Your task to perform on an android device: turn on priority inbox in the gmail app Image 0: 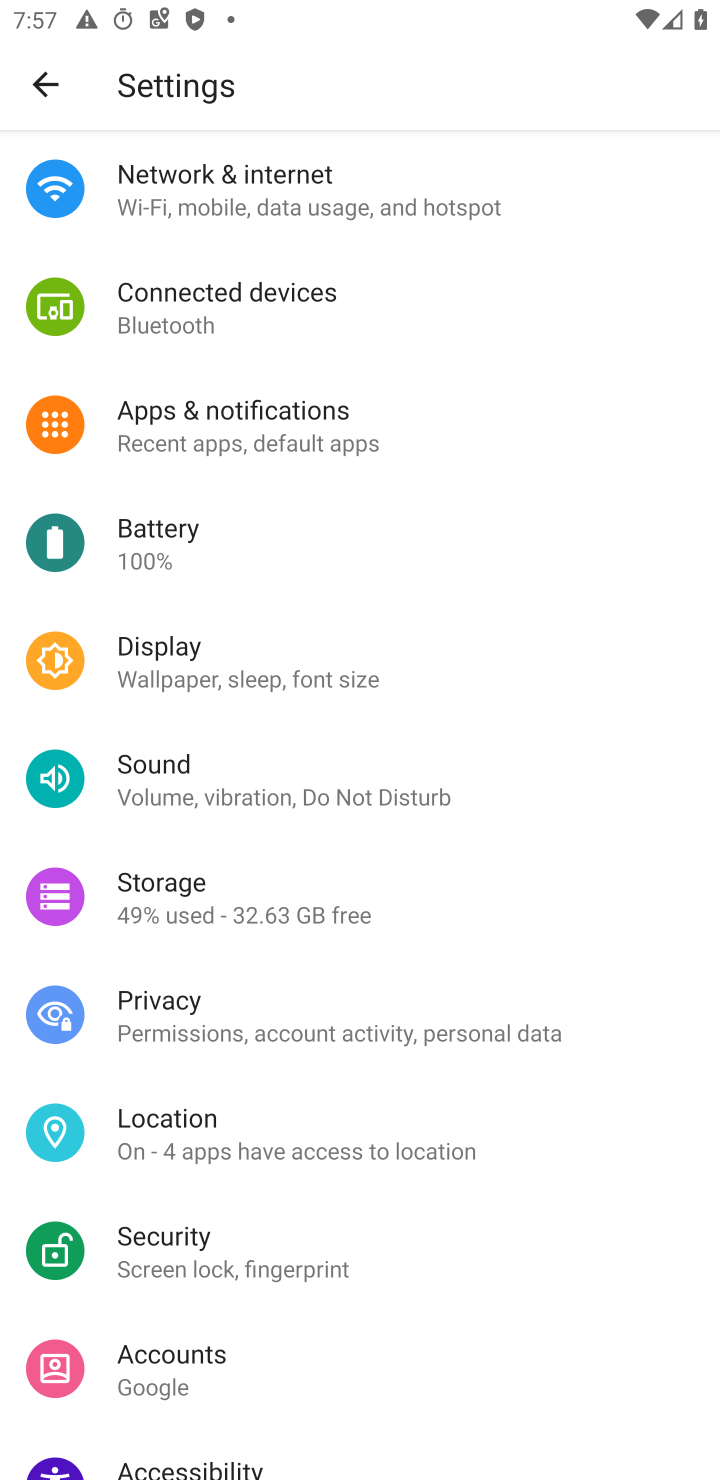
Step 0: press home button
Your task to perform on an android device: turn on priority inbox in the gmail app Image 1: 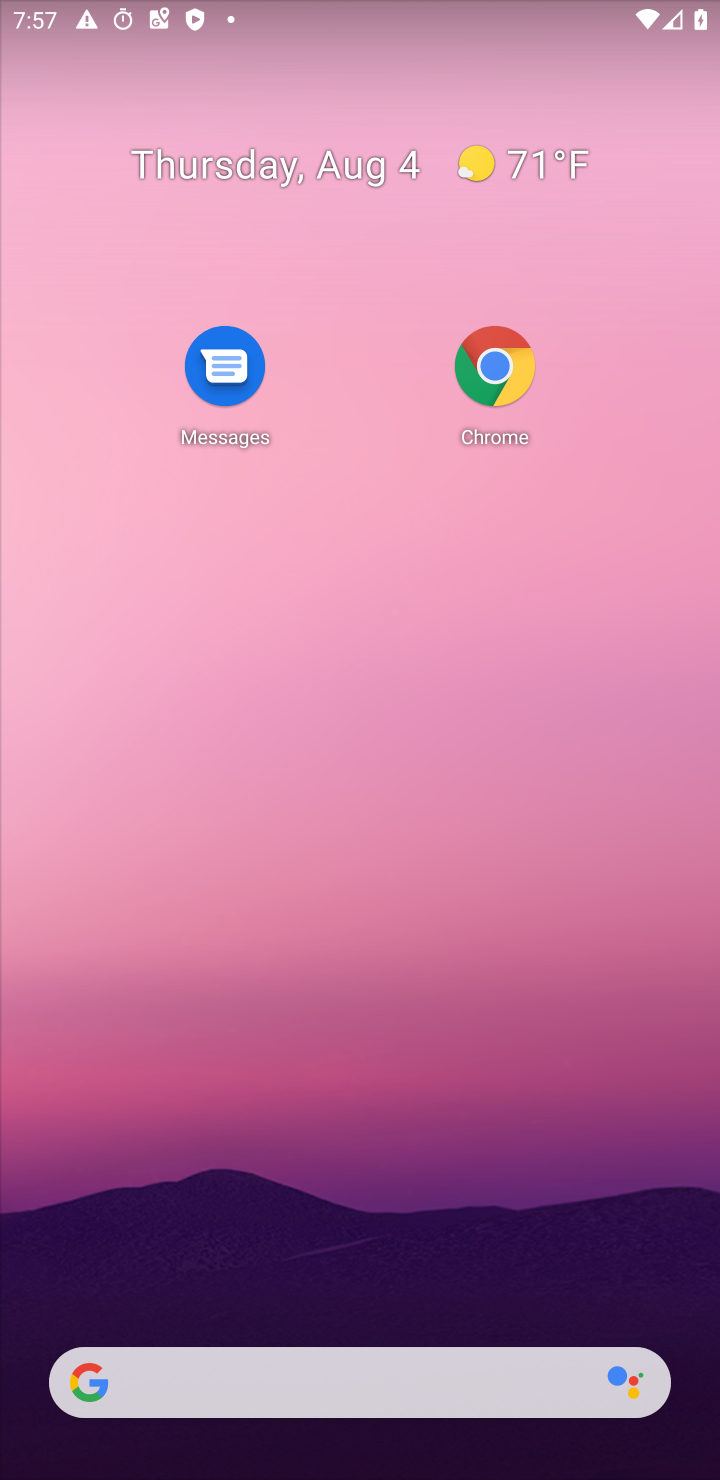
Step 1: drag from (486, 1380) to (365, 131)
Your task to perform on an android device: turn on priority inbox in the gmail app Image 2: 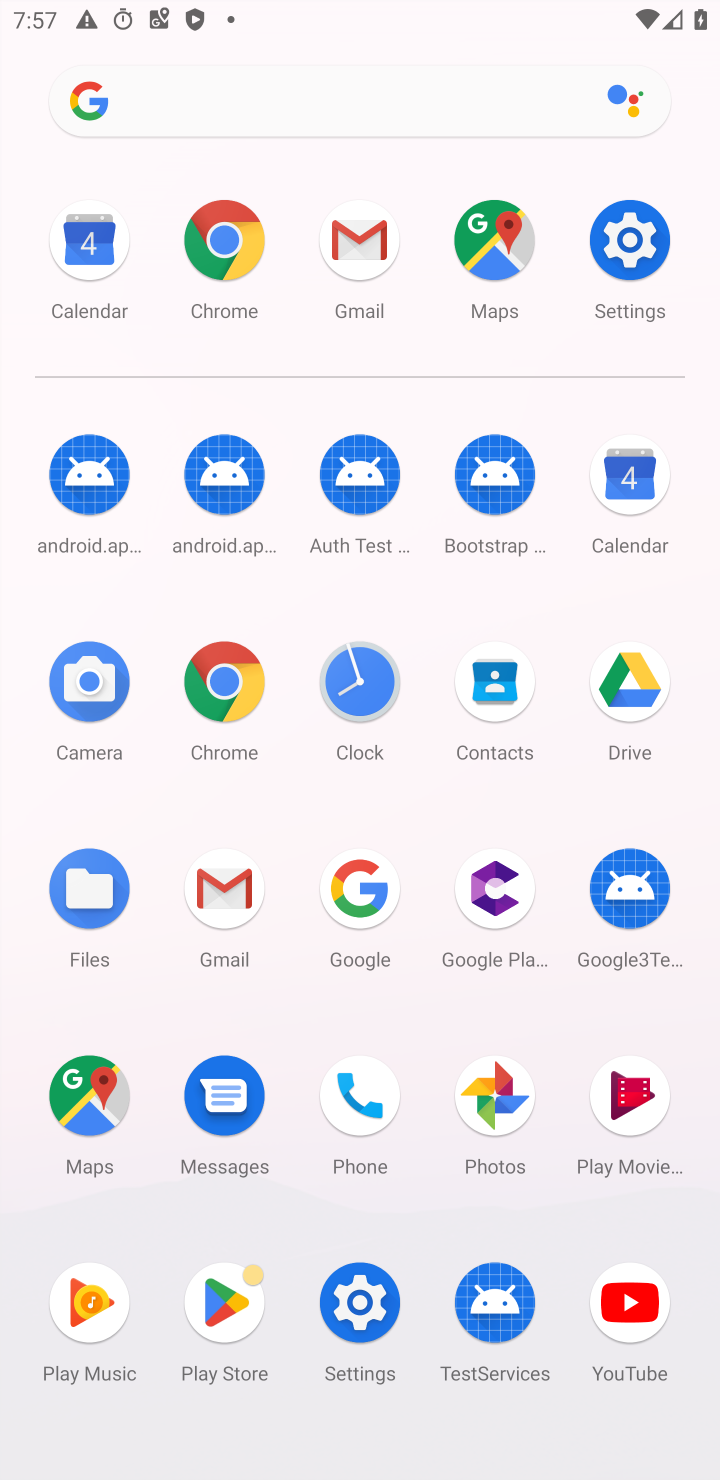
Step 2: click (214, 698)
Your task to perform on an android device: turn on priority inbox in the gmail app Image 3: 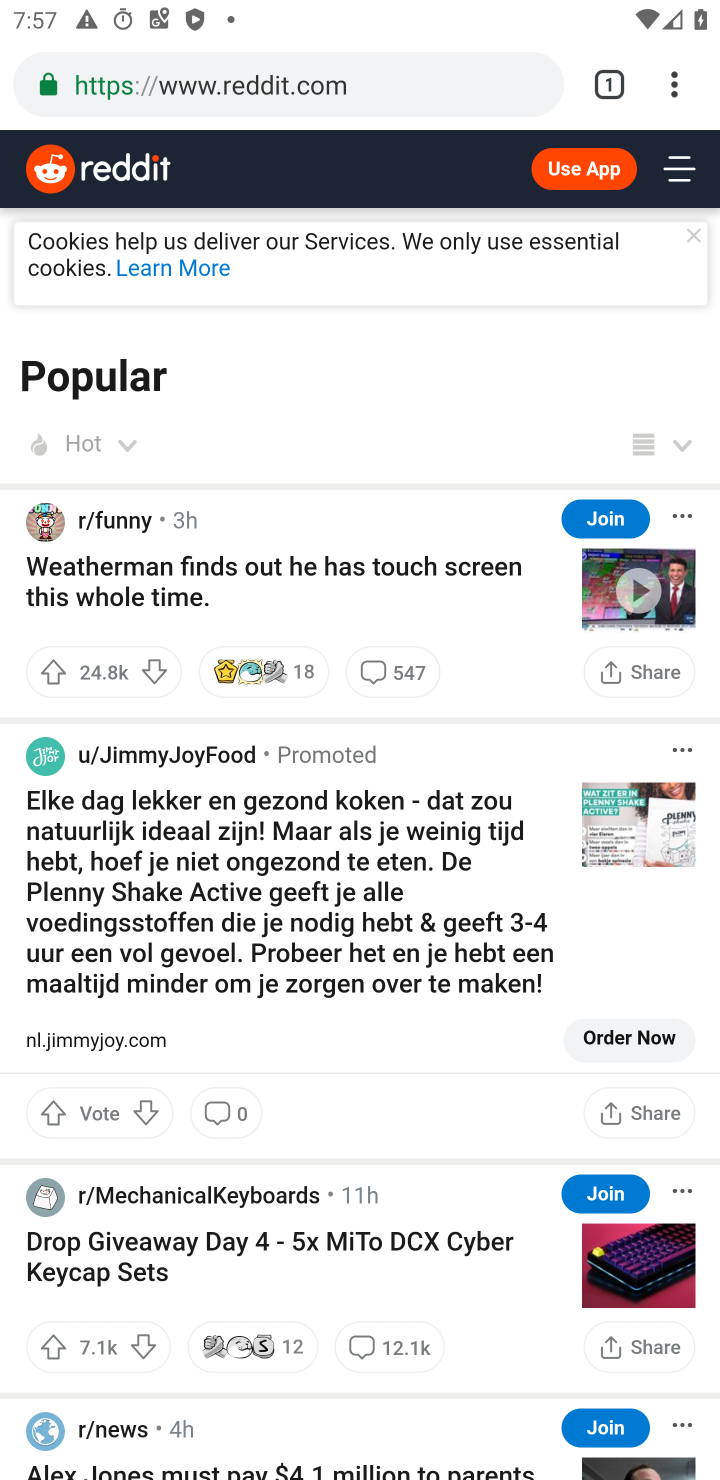
Step 3: click (680, 85)
Your task to perform on an android device: turn on priority inbox in the gmail app Image 4: 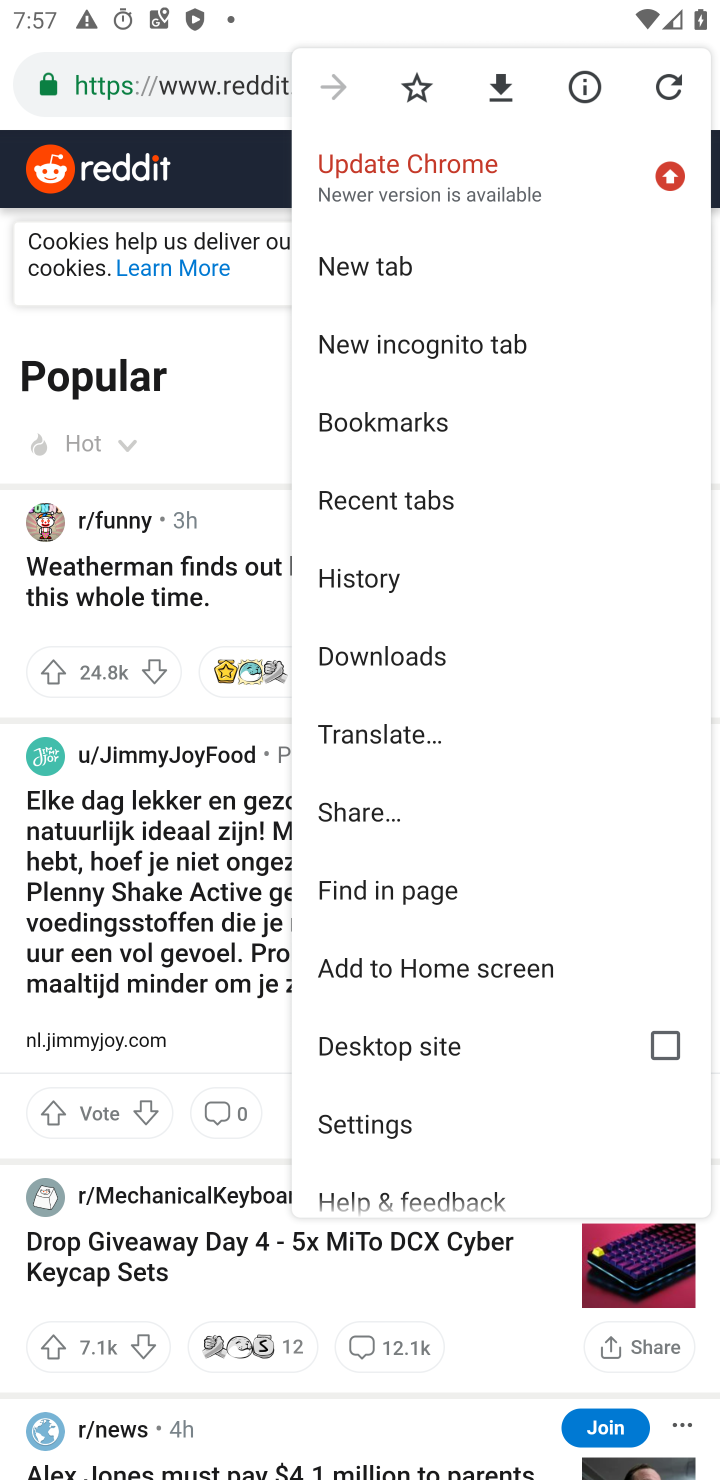
Step 4: click (407, 1123)
Your task to perform on an android device: turn on priority inbox in the gmail app Image 5: 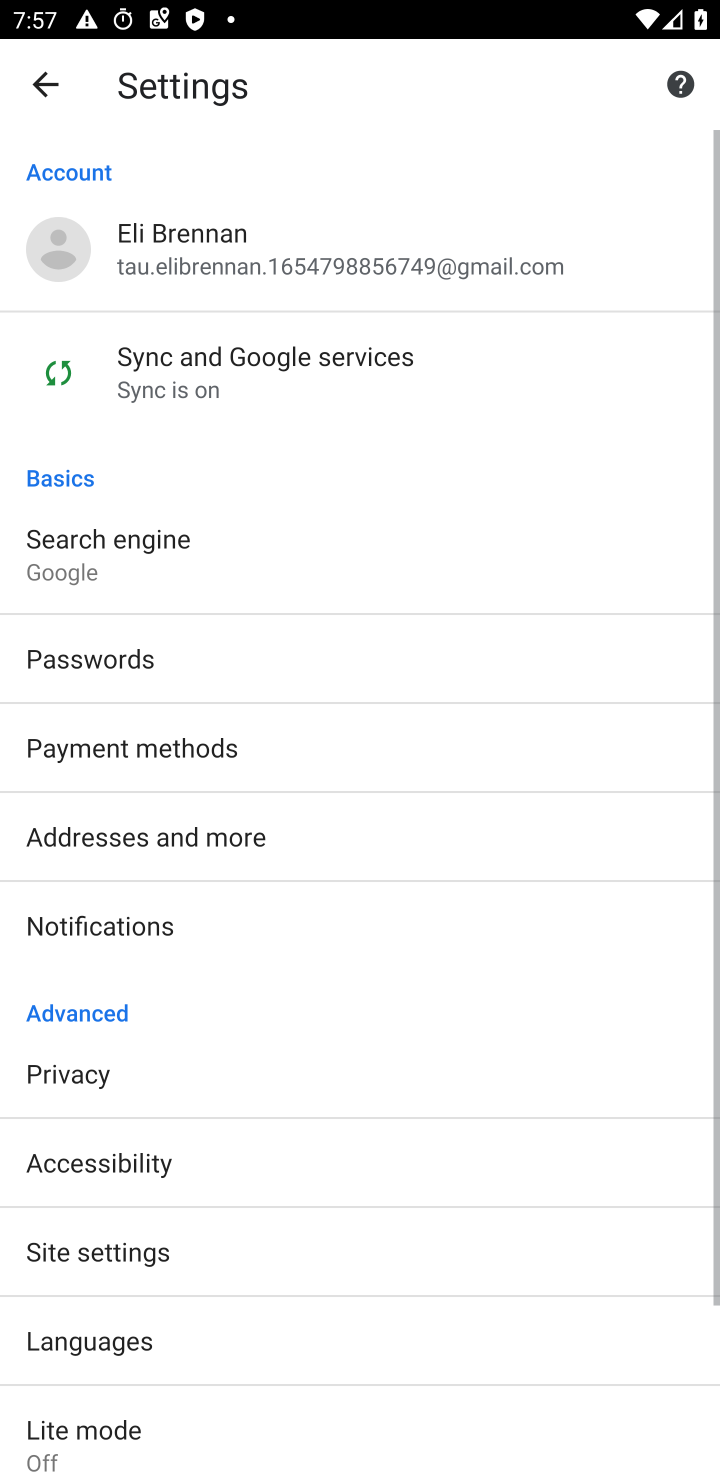
Step 5: press home button
Your task to perform on an android device: turn on priority inbox in the gmail app Image 6: 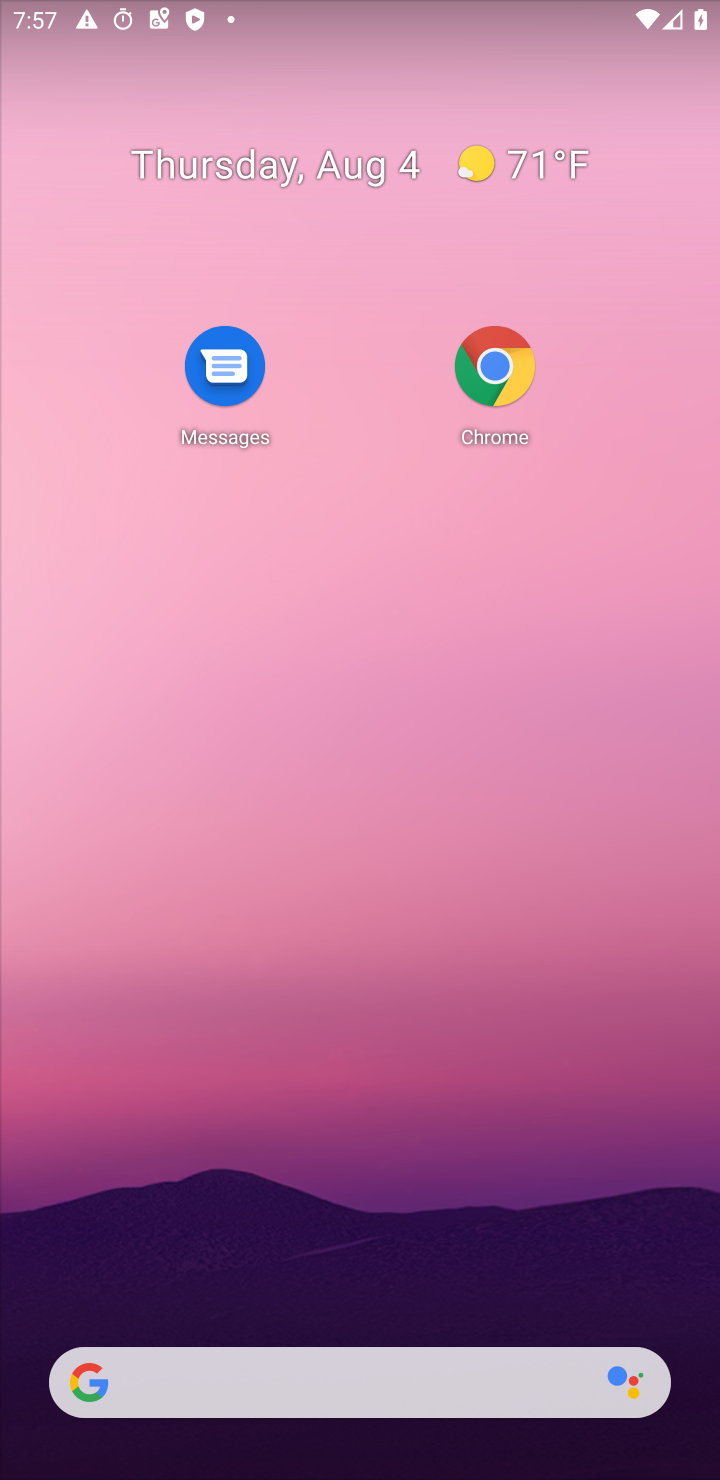
Step 6: drag from (397, 1304) to (346, 217)
Your task to perform on an android device: turn on priority inbox in the gmail app Image 7: 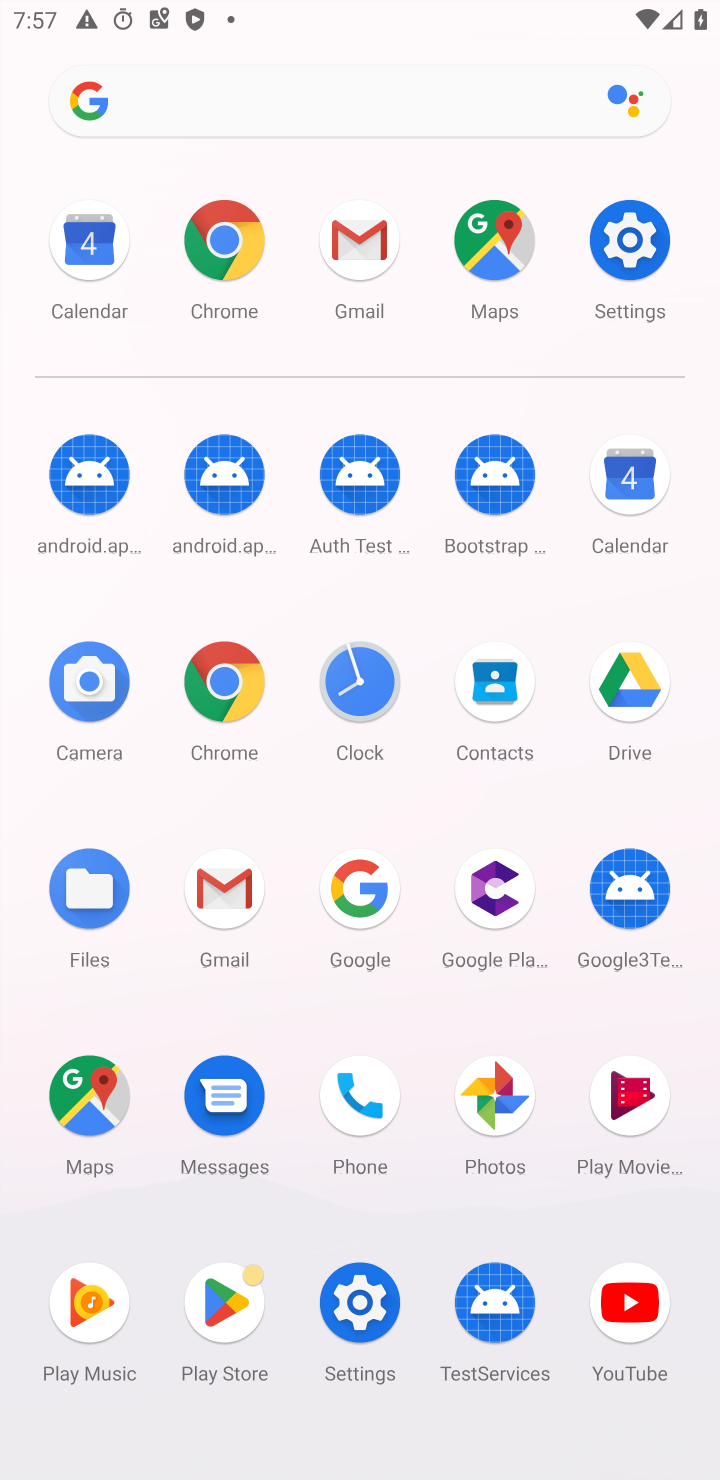
Step 7: click (342, 259)
Your task to perform on an android device: turn on priority inbox in the gmail app Image 8: 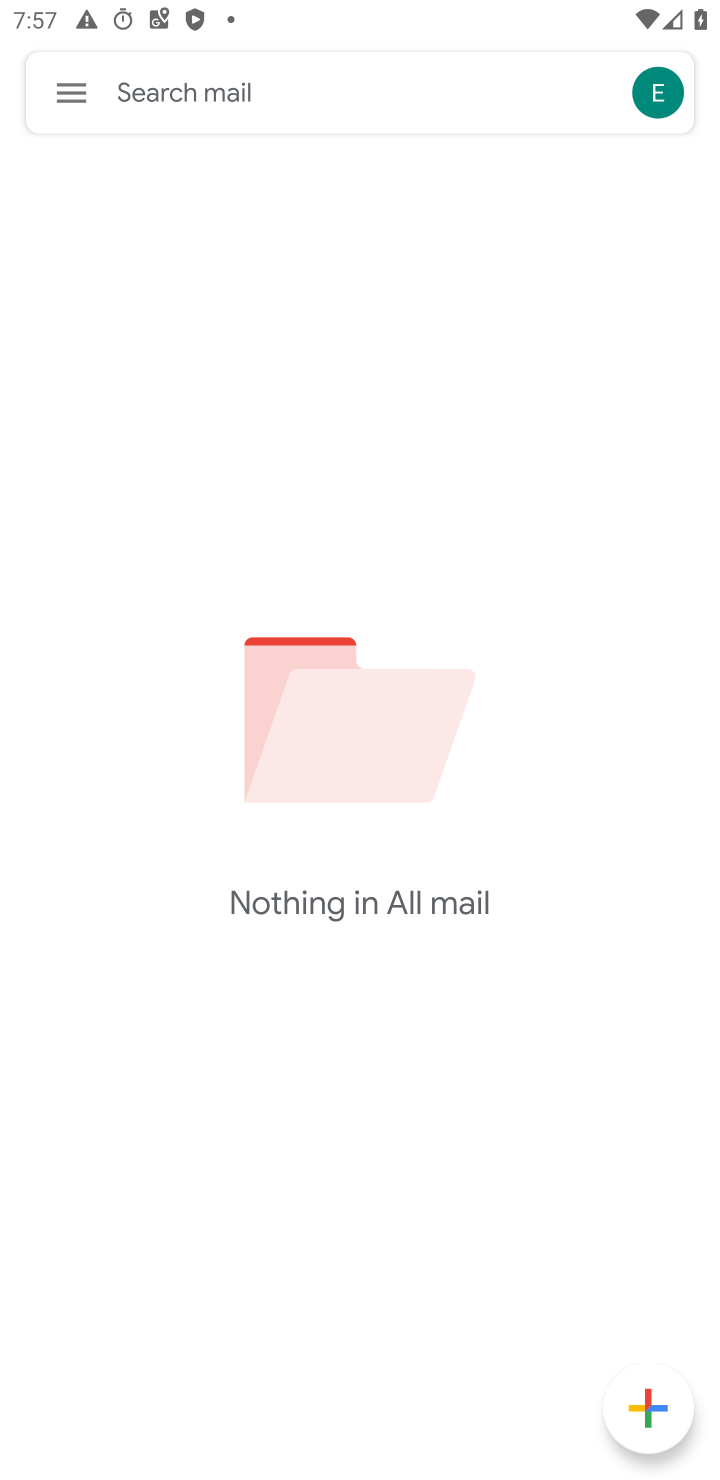
Step 8: click (73, 104)
Your task to perform on an android device: turn on priority inbox in the gmail app Image 9: 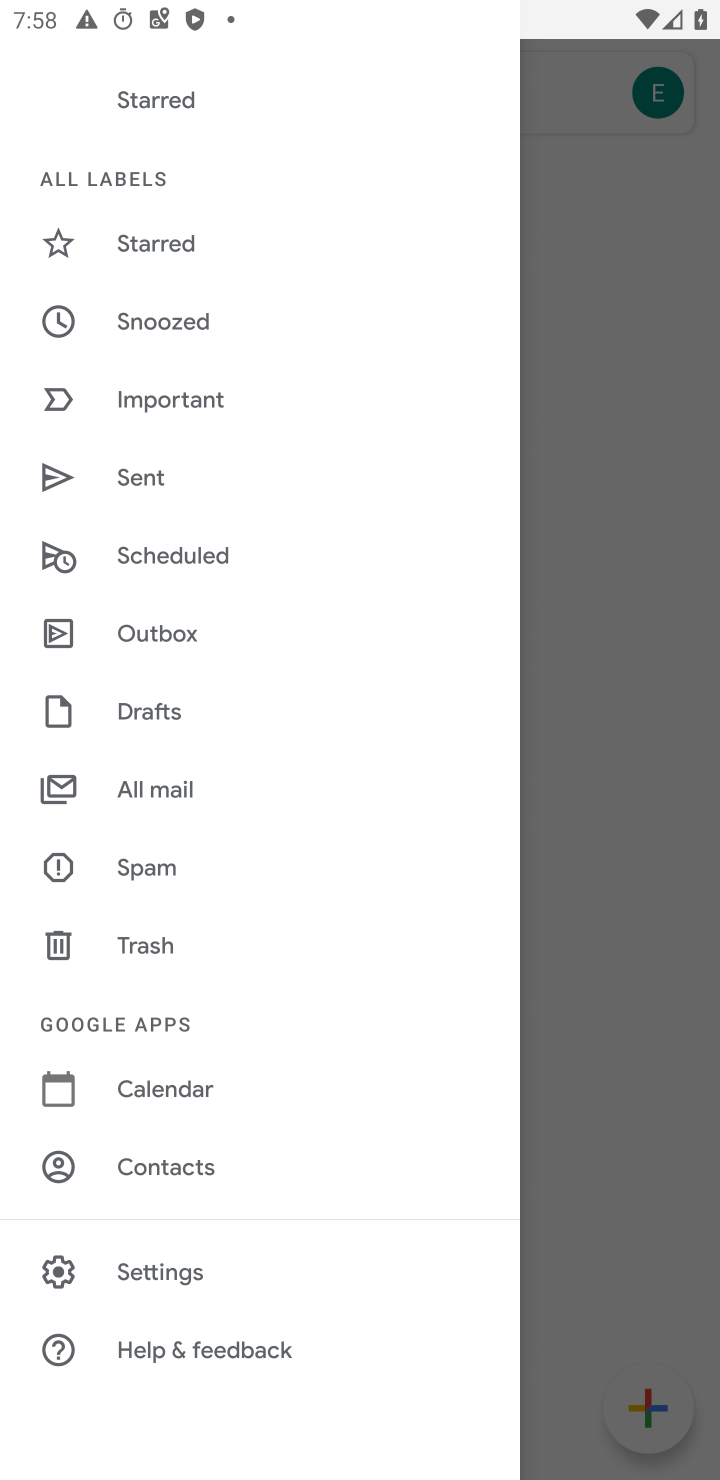
Step 9: click (214, 1260)
Your task to perform on an android device: turn on priority inbox in the gmail app Image 10: 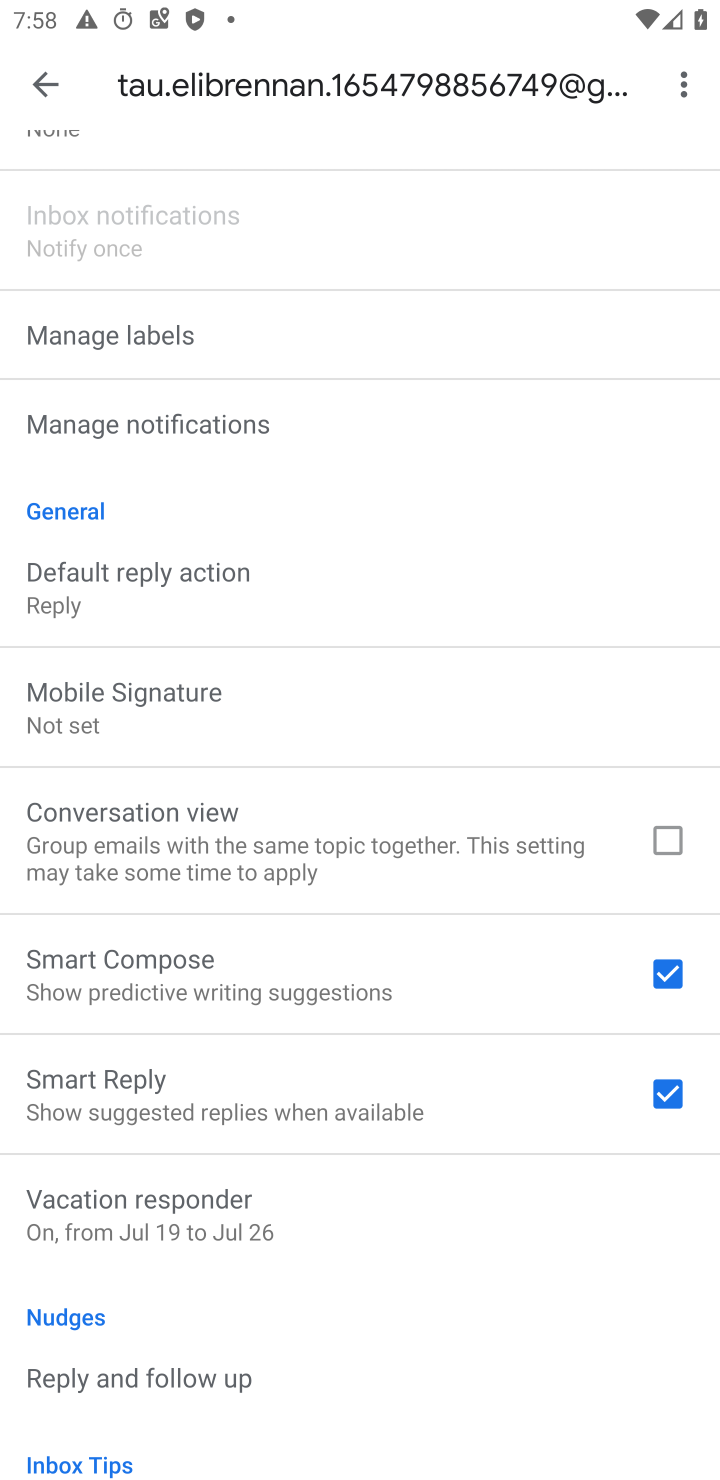
Step 10: drag from (210, 376) to (426, 1181)
Your task to perform on an android device: turn on priority inbox in the gmail app Image 11: 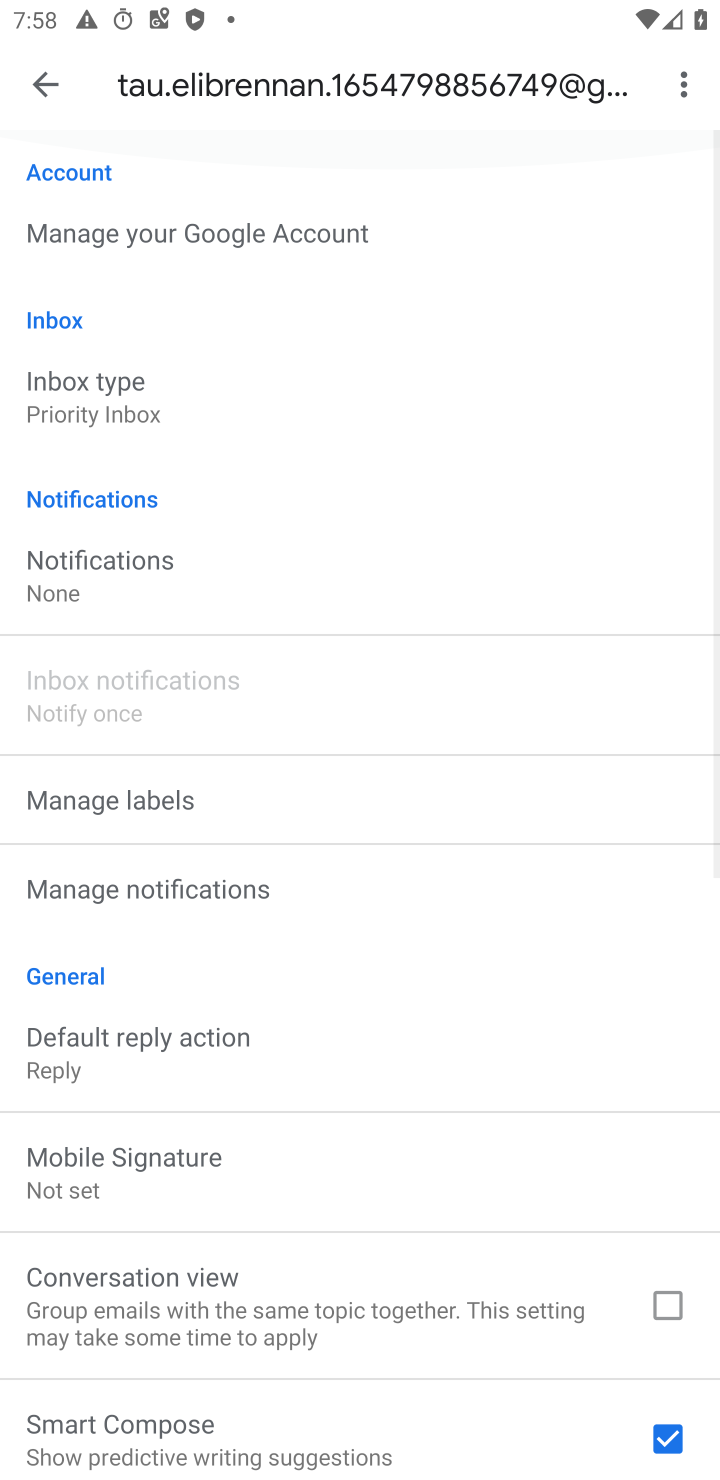
Step 11: click (143, 382)
Your task to perform on an android device: turn on priority inbox in the gmail app Image 12: 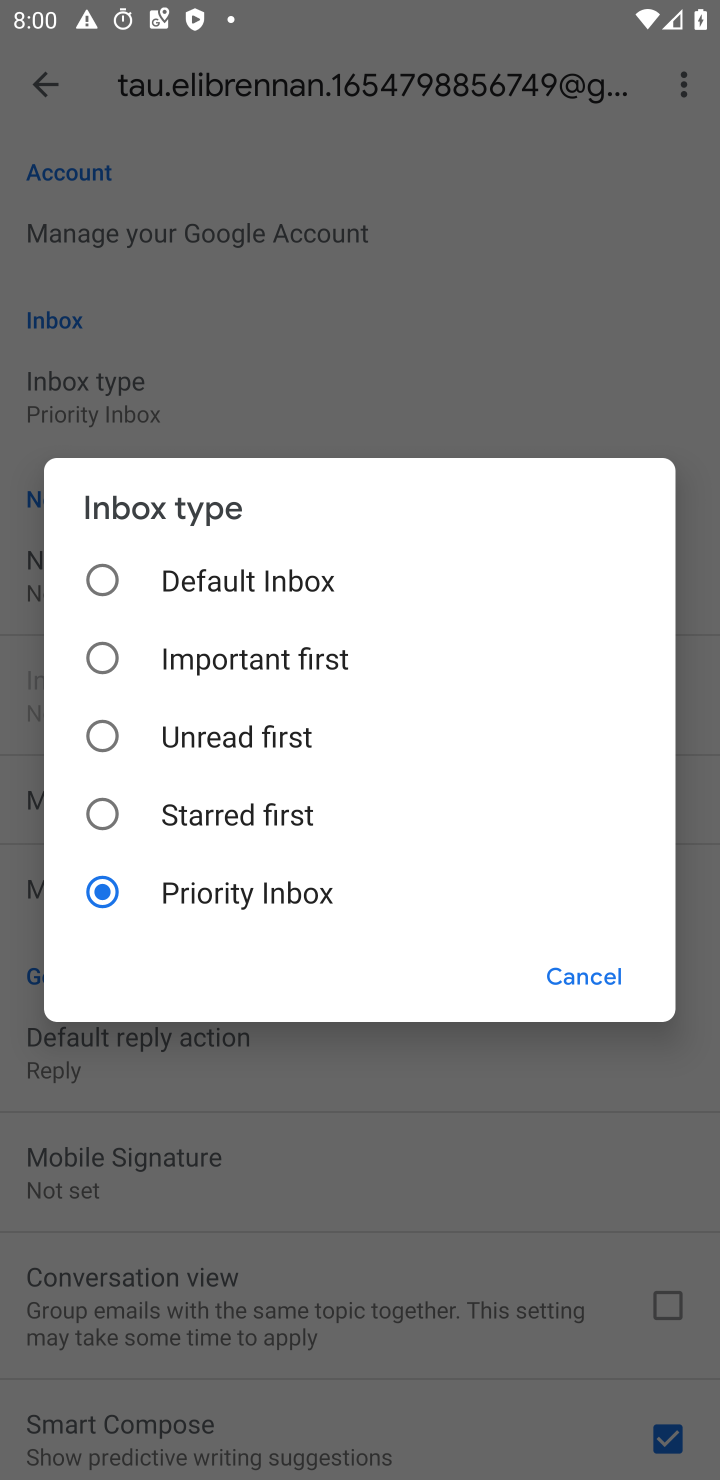
Step 12: task complete